Your task to perform on an android device: check the backup settings in the google photos Image 0: 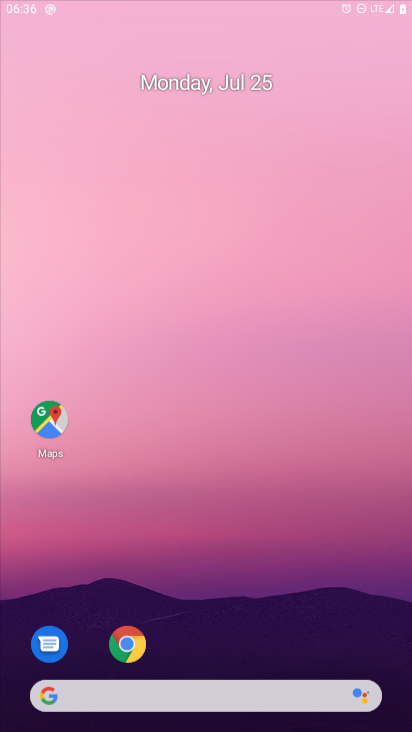
Step 0: press home button
Your task to perform on an android device: check the backup settings in the google photos Image 1: 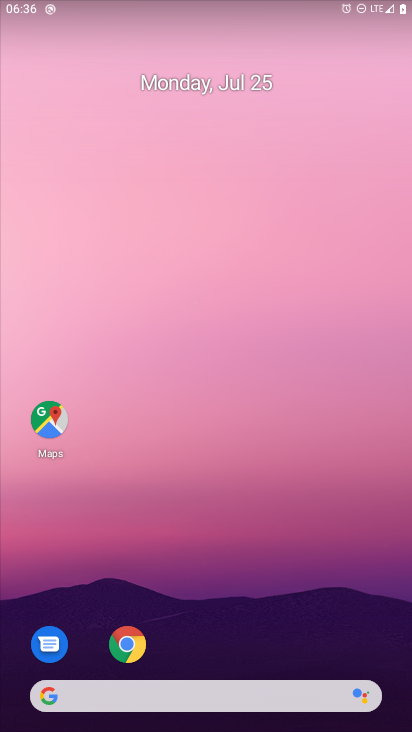
Step 1: drag from (257, 644) to (212, 170)
Your task to perform on an android device: check the backup settings in the google photos Image 2: 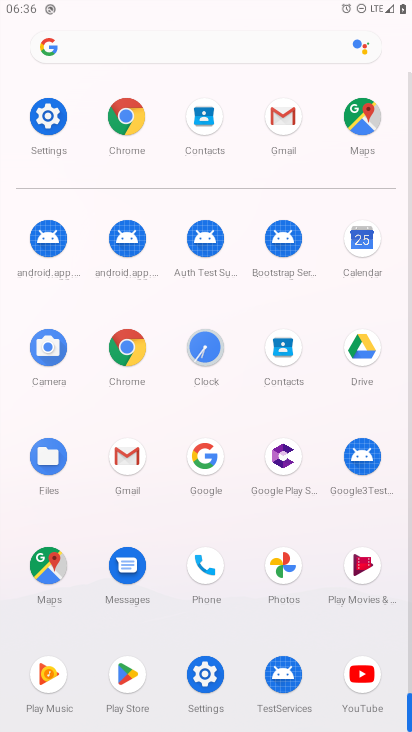
Step 2: click (274, 575)
Your task to perform on an android device: check the backup settings in the google photos Image 3: 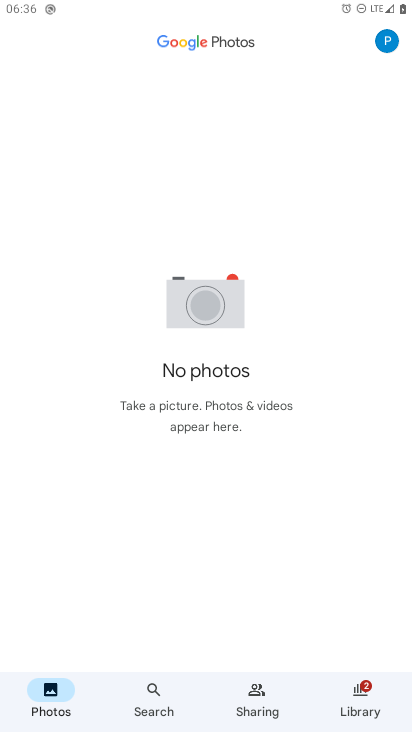
Step 3: click (383, 46)
Your task to perform on an android device: check the backup settings in the google photos Image 4: 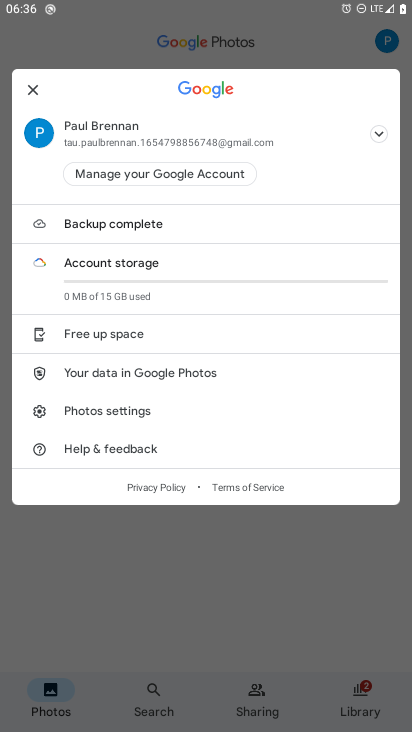
Step 4: click (99, 416)
Your task to perform on an android device: check the backup settings in the google photos Image 5: 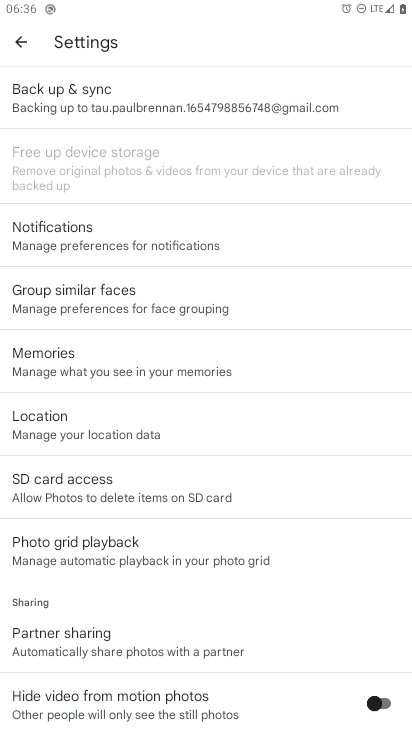
Step 5: click (85, 89)
Your task to perform on an android device: check the backup settings in the google photos Image 6: 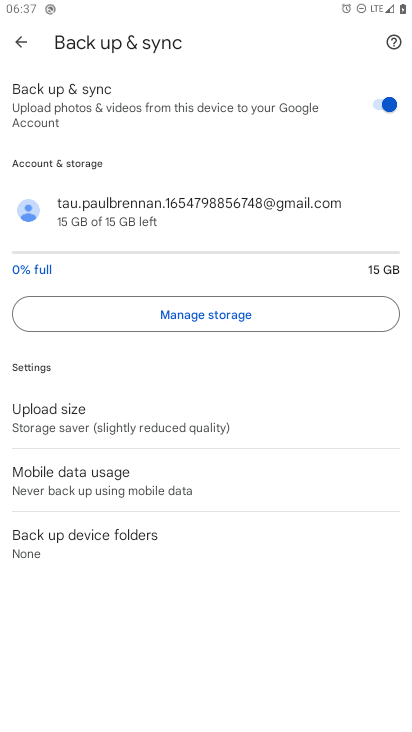
Step 6: task complete